Your task to perform on an android device: When is my next appointment? Image 0: 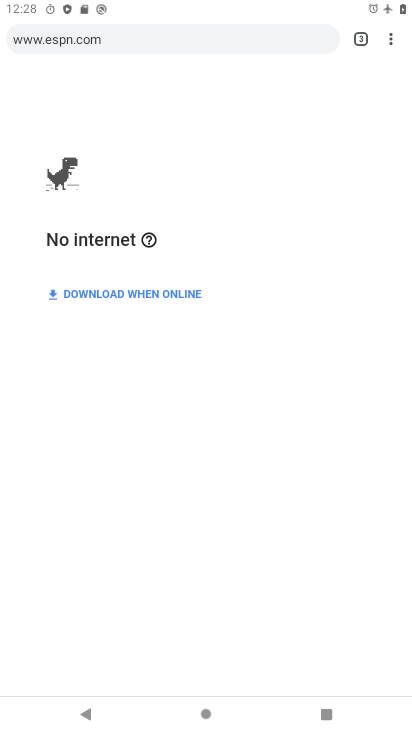
Step 0: press home button
Your task to perform on an android device: When is my next appointment? Image 1: 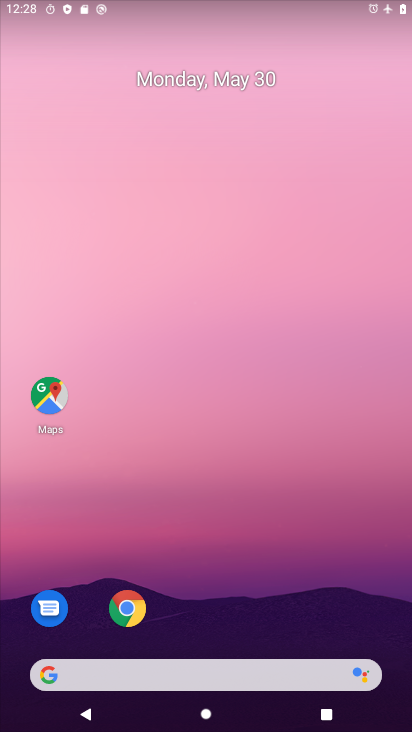
Step 1: drag from (217, 660) to (143, 14)
Your task to perform on an android device: When is my next appointment? Image 2: 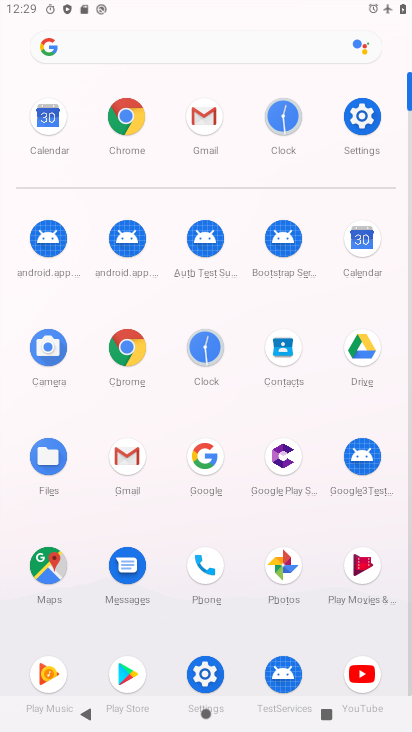
Step 2: click (366, 246)
Your task to perform on an android device: When is my next appointment? Image 3: 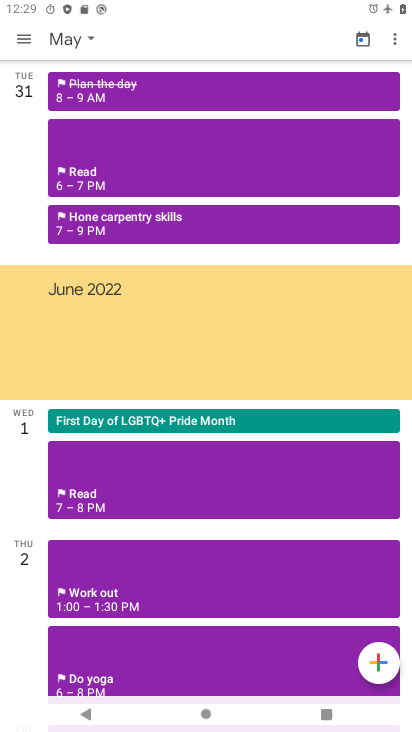
Step 3: task complete